Your task to perform on an android device: change keyboard looks Image 0: 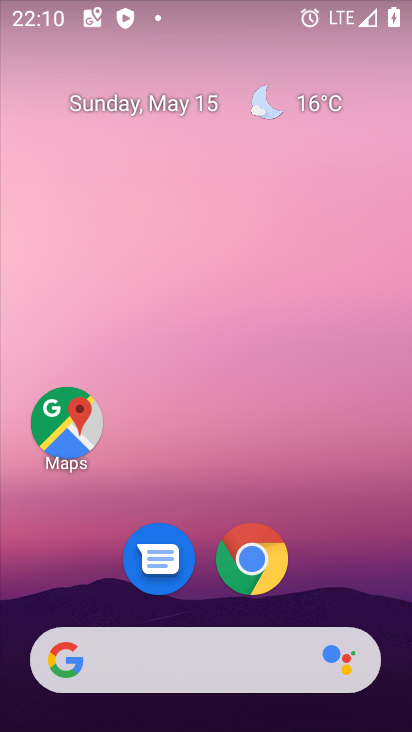
Step 0: drag from (330, 498) to (196, 45)
Your task to perform on an android device: change keyboard looks Image 1: 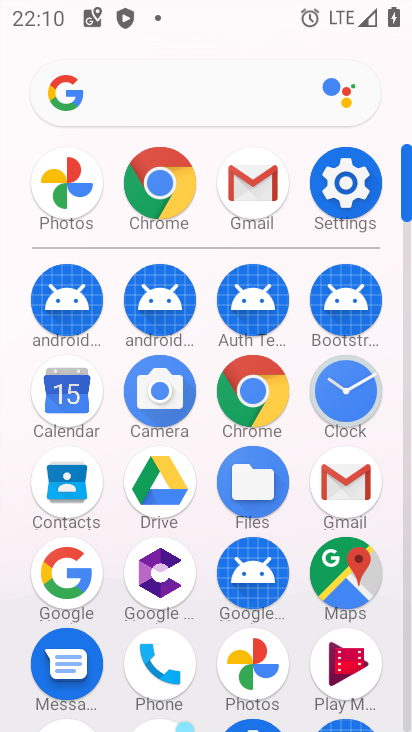
Step 1: click (348, 190)
Your task to perform on an android device: change keyboard looks Image 2: 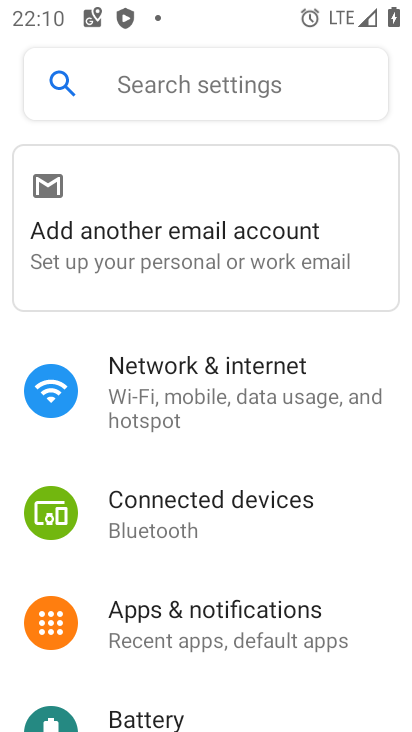
Step 2: drag from (193, 540) to (92, 106)
Your task to perform on an android device: change keyboard looks Image 3: 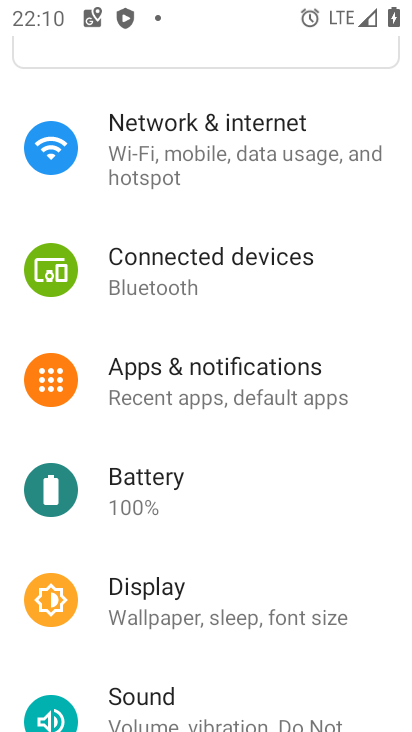
Step 3: drag from (148, 553) to (135, 23)
Your task to perform on an android device: change keyboard looks Image 4: 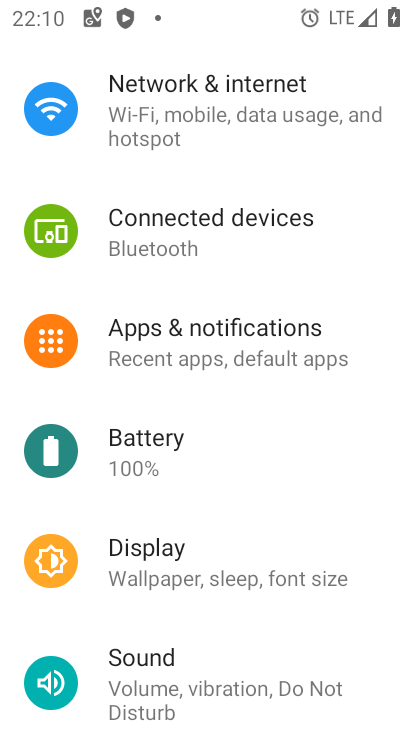
Step 4: drag from (231, 500) to (157, 55)
Your task to perform on an android device: change keyboard looks Image 5: 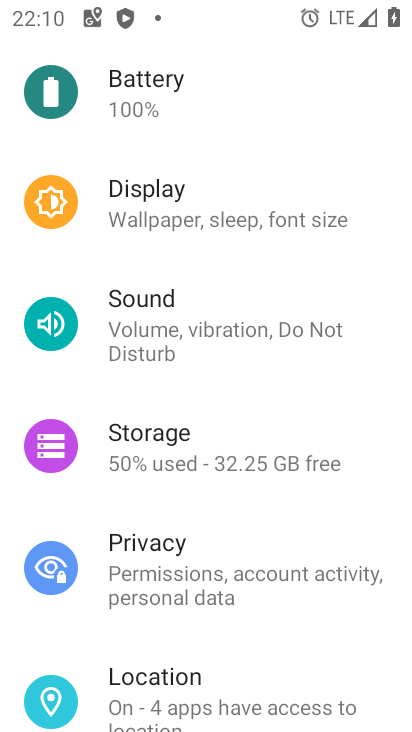
Step 5: drag from (223, 638) to (189, 70)
Your task to perform on an android device: change keyboard looks Image 6: 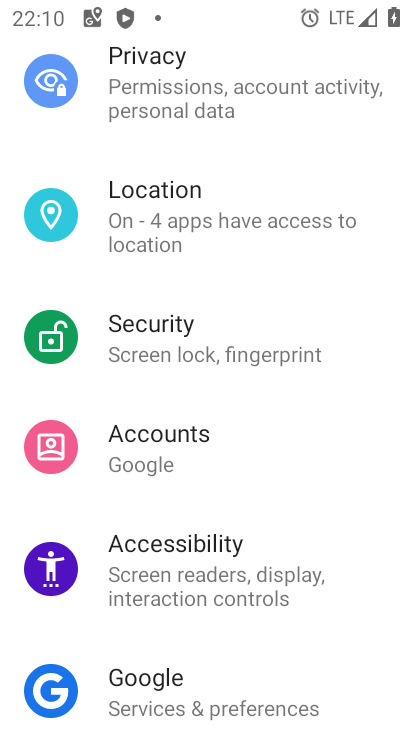
Step 6: drag from (156, 517) to (118, 101)
Your task to perform on an android device: change keyboard looks Image 7: 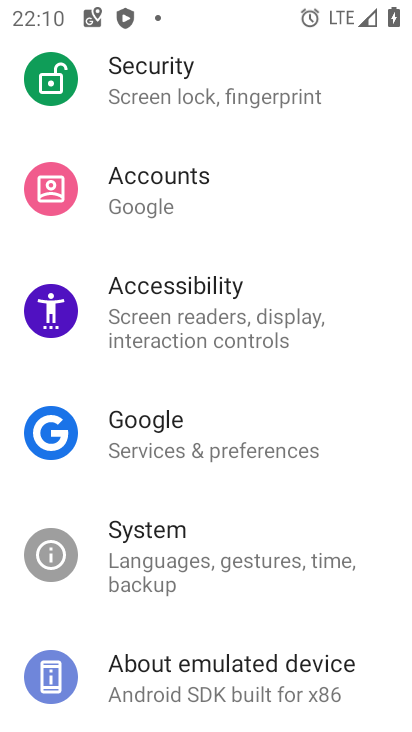
Step 7: click (134, 540)
Your task to perform on an android device: change keyboard looks Image 8: 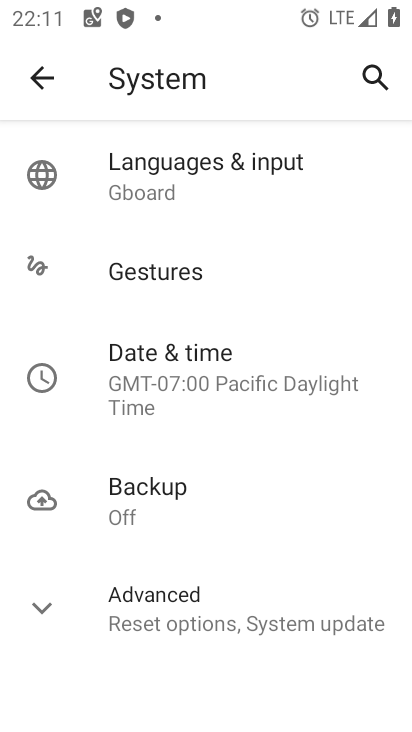
Step 8: click (165, 160)
Your task to perform on an android device: change keyboard looks Image 9: 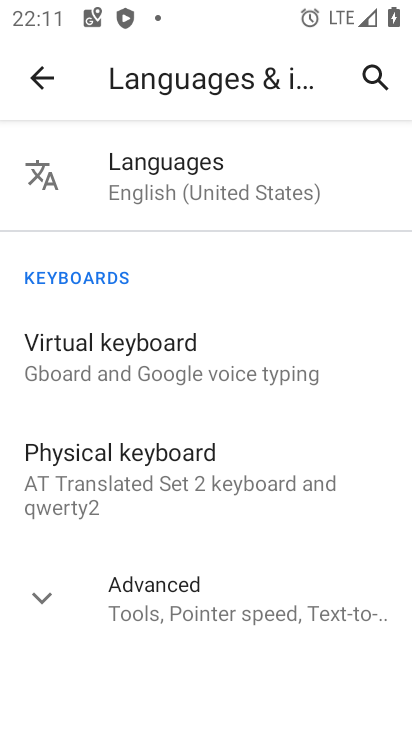
Step 9: click (98, 342)
Your task to perform on an android device: change keyboard looks Image 10: 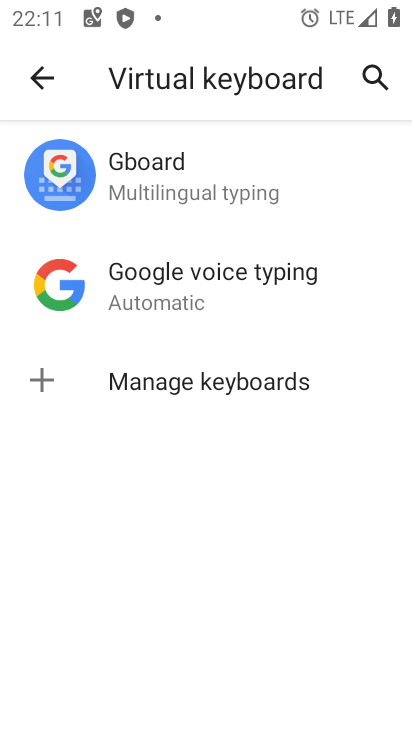
Step 10: click (126, 162)
Your task to perform on an android device: change keyboard looks Image 11: 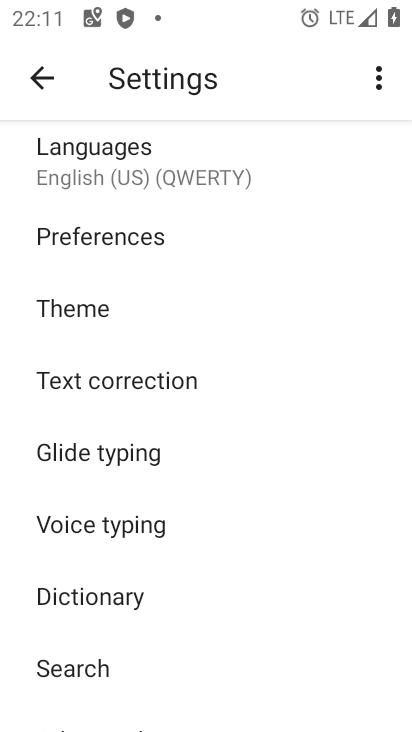
Step 11: click (65, 304)
Your task to perform on an android device: change keyboard looks Image 12: 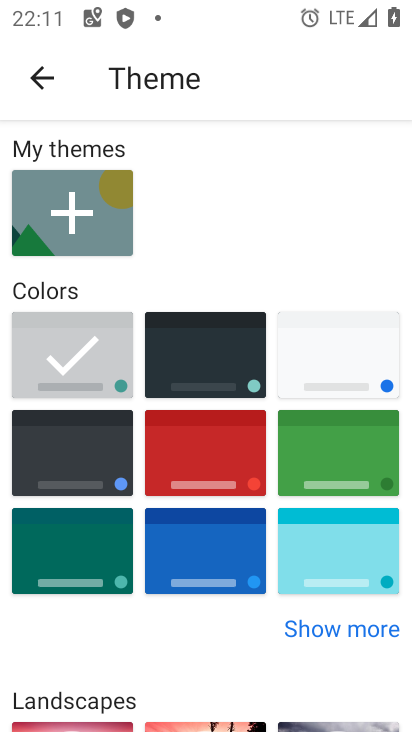
Step 12: click (344, 443)
Your task to perform on an android device: change keyboard looks Image 13: 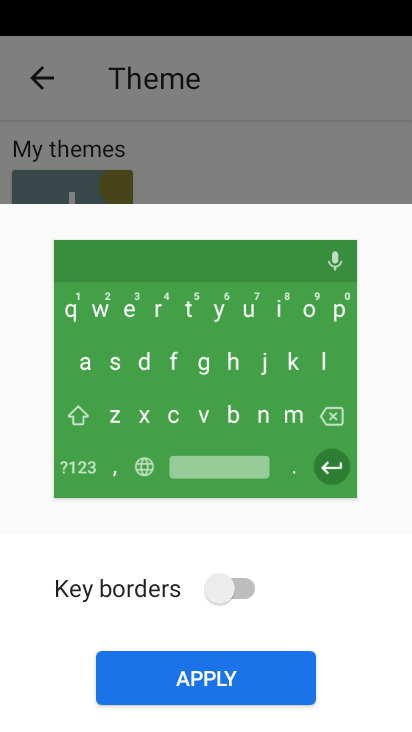
Step 13: click (218, 672)
Your task to perform on an android device: change keyboard looks Image 14: 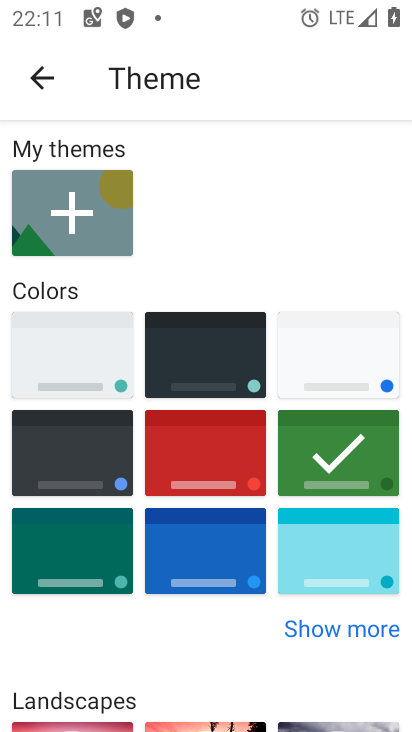
Step 14: task complete